Your task to perform on an android device: Turn off the flashlight Image 0: 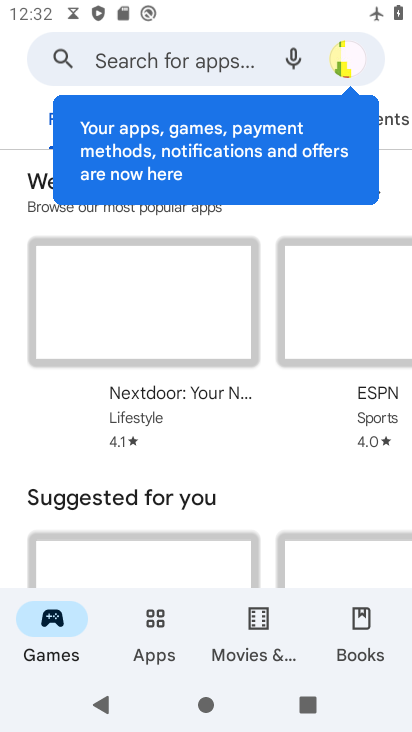
Step 0: drag from (313, 13) to (198, 622)
Your task to perform on an android device: Turn off the flashlight Image 1: 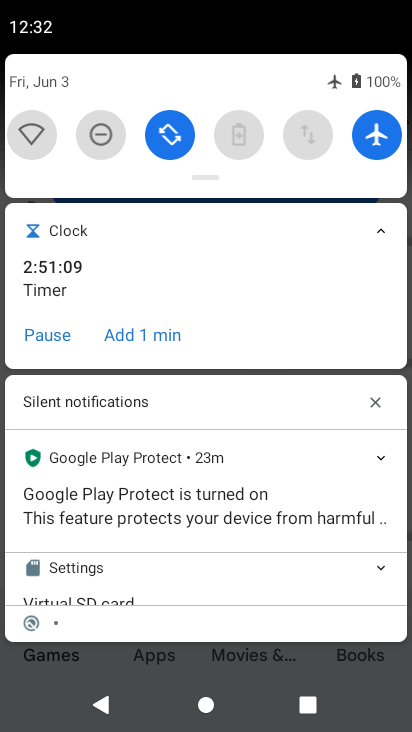
Step 1: click (372, 137)
Your task to perform on an android device: Turn off the flashlight Image 2: 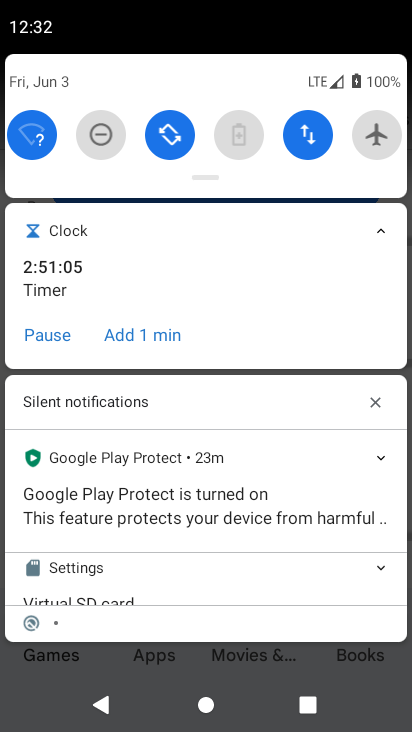
Step 2: click (146, 649)
Your task to perform on an android device: Turn off the flashlight Image 3: 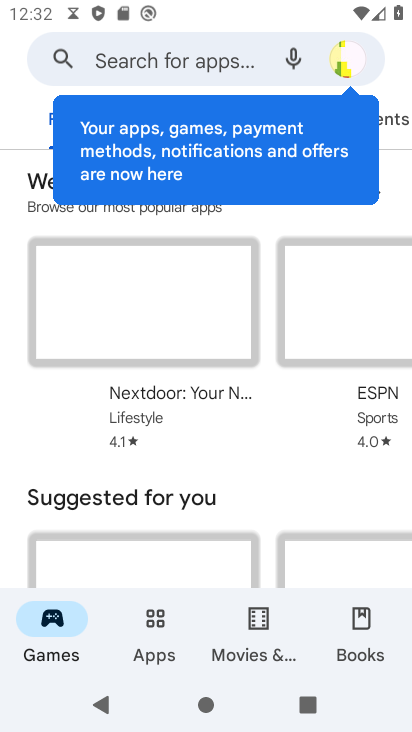
Step 3: press back button
Your task to perform on an android device: Turn off the flashlight Image 4: 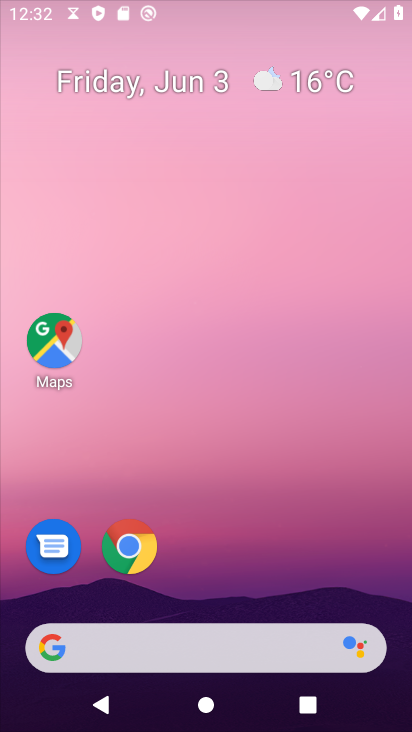
Step 4: drag from (190, 580) to (275, 36)
Your task to perform on an android device: Turn off the flashlight Image 5: 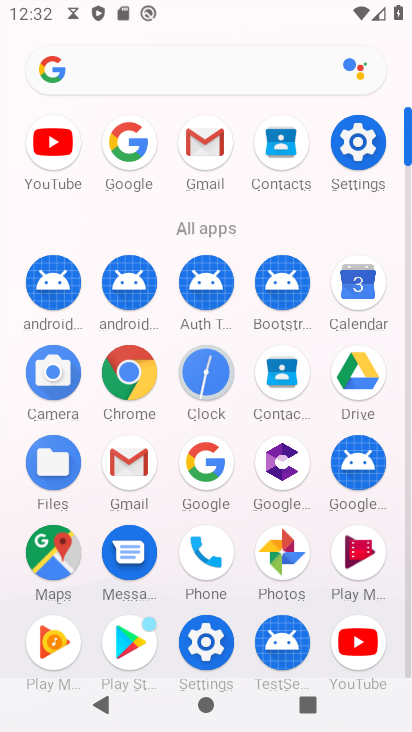
Step 5: click (354, 146)
Your task to perform on an android device: Turn off the flashlight Image 6: 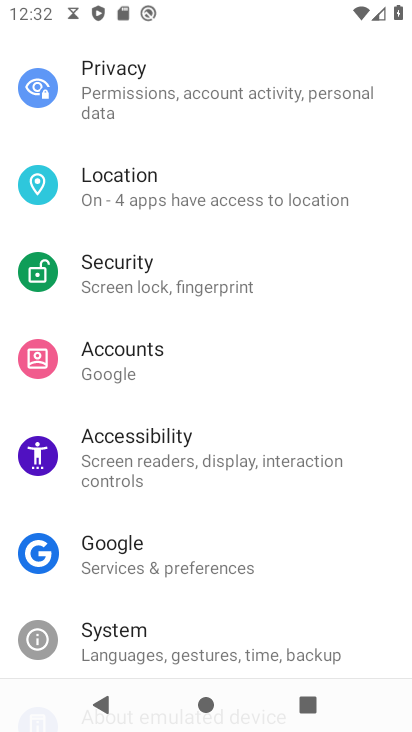
Step 6: drag from (172, 145) to (153, 660)
Your task to perform on an android device: Turn off the flashlight Image 7: 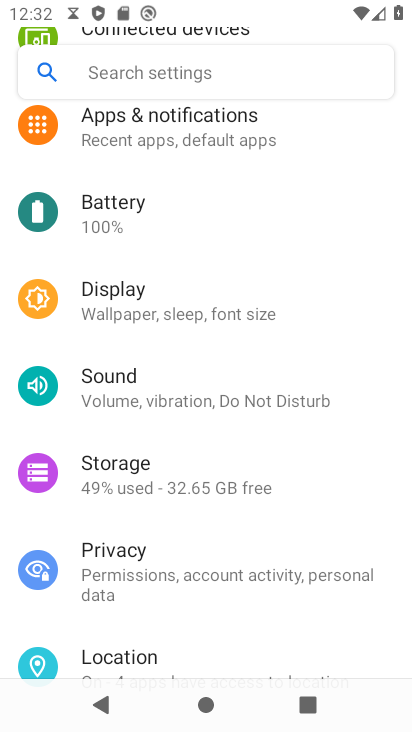
Step 7: click (138, 70)
Your task to perform on an android device: Turn off the flashlight Image 8: 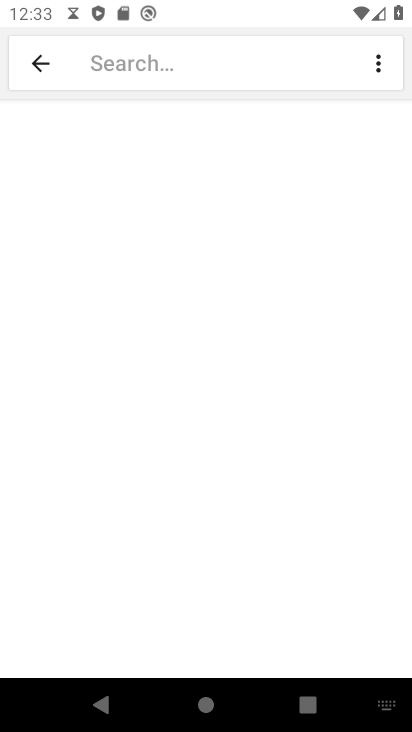
Step 8: type "flashlight"
Your task to perform on an android device: Turn off the flashlight Image 9: 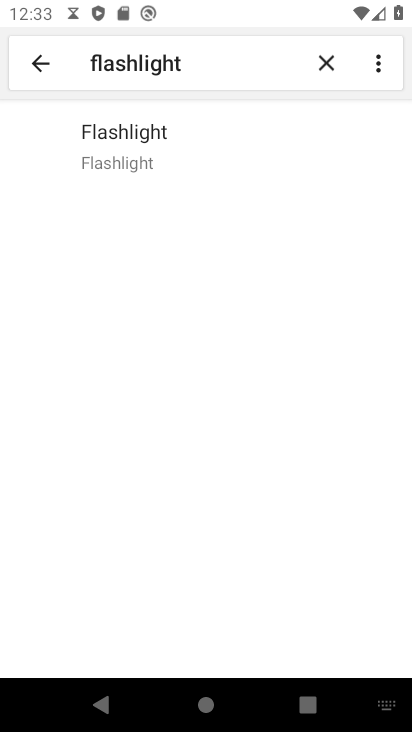
Step 9: click (159, 132)
Your task to perform on an android device: Turn off the flashlight Image 10: 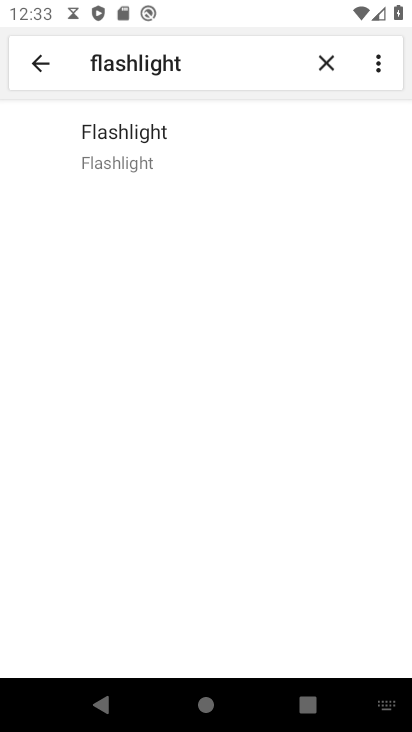
Step 10: task complete